Your task to perform on an android device: Search for sushi restaurants on Maps Image 0: 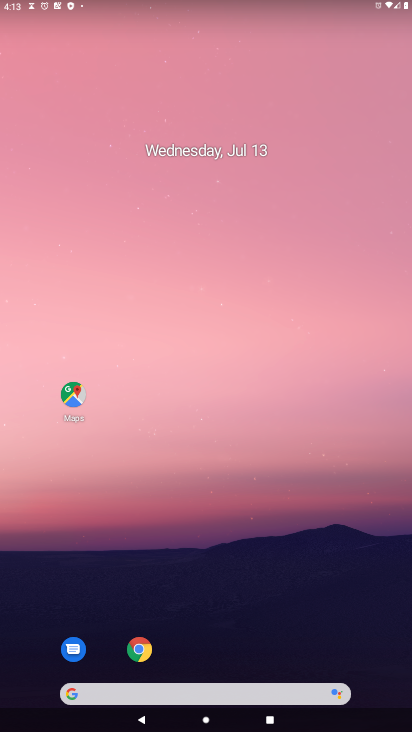
Step 0: drag from (237, 719) to (240, 119)
Your task to perform on an android device: Search for sushi restaurants on Maps Image 1: 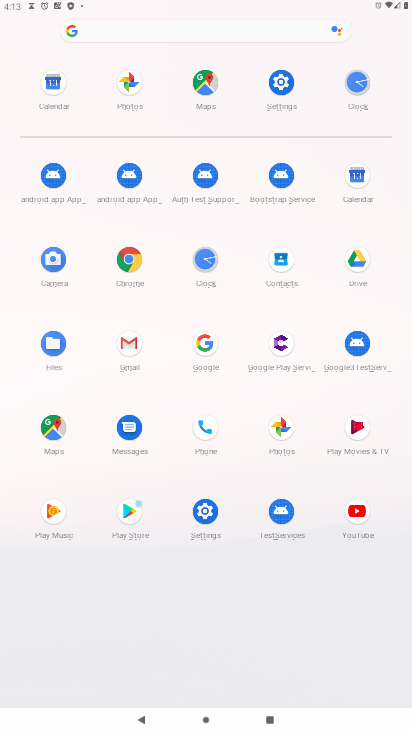
Step 1: click (54, 422)
Your task to perform on an android device: Search for sushi restaurants on Maps Image 2: 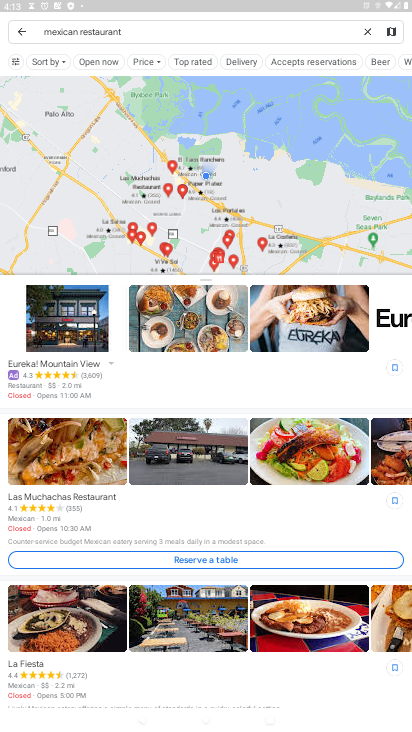
Step 2: click (369, 24)
Your task to perform on an android device: Search for sushi restaurants on Maps Image 3: 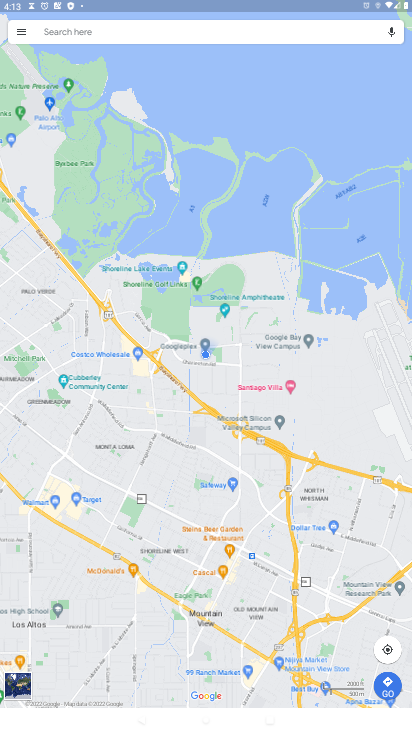
Step 3: click (251, 28)
Your task to perform on an android device: Search for sushi restaurants on Maps Image 4: 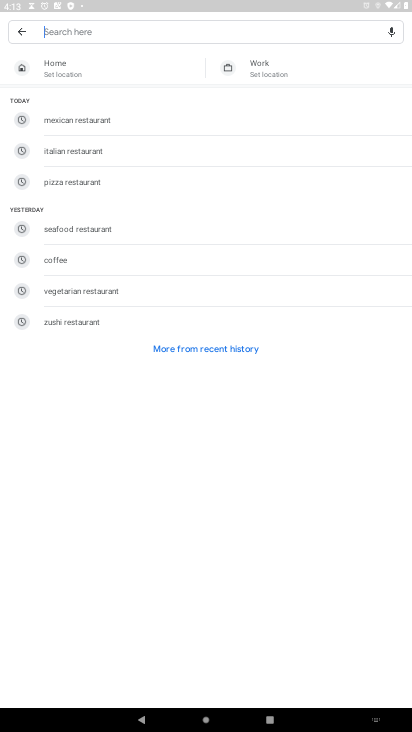
Step 4: type "sushi restaurants"
Your task to perform on an android device: Search for sushi restaurants on Maps Image 5: 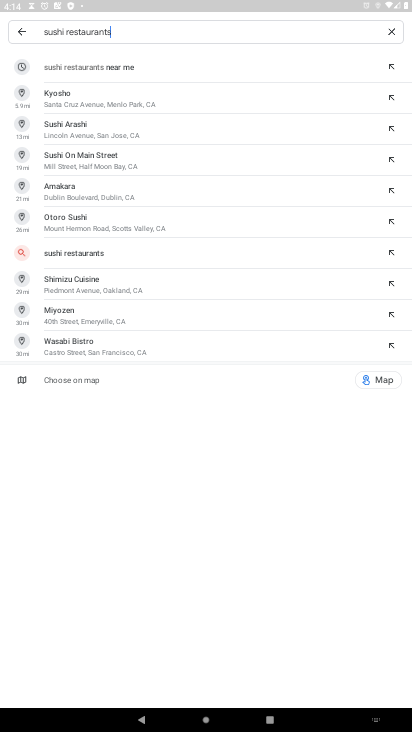
Step 5: click (93, 64)
Your task to perform on an android device: Search for sushi restaurants on Maps Image 6: 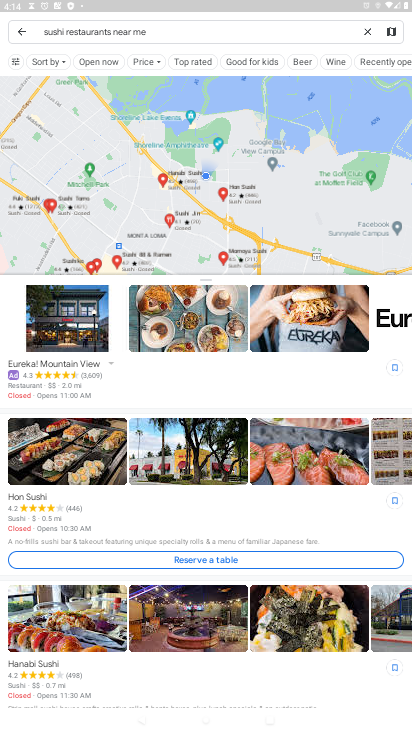
Step 6: task complete